Your task to perform on an android device: Open calendar and show me the second week of next month Image 0: 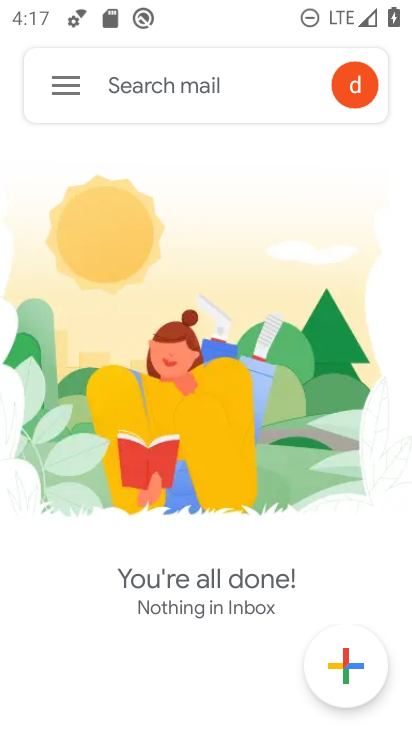
Step 0: press home button
Your task to perform on an android device: Open calendar and show me the second week of next month Image 1: 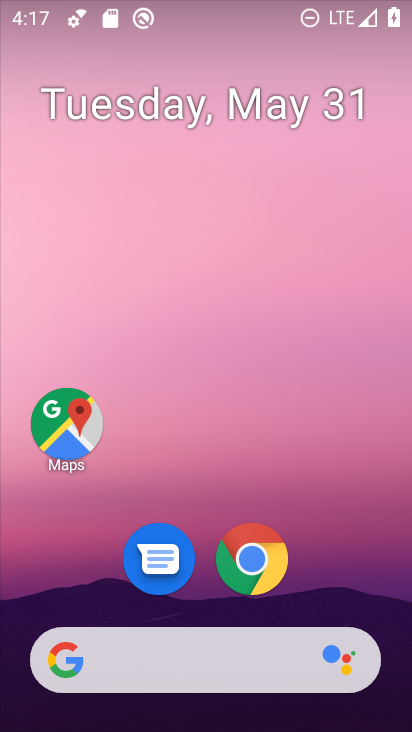
Step 1: drag from (235, 721) to (234, 100)
Your task to perform on an android device: Open calendar and show me the second week of next month Image 2: 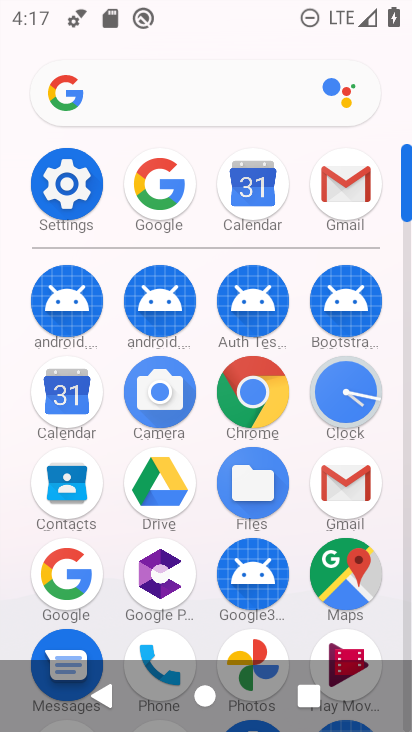
Step 2: click (61, 402)
Your task to perform on an android device: Open calendar and show me the second week of next month Image 3: 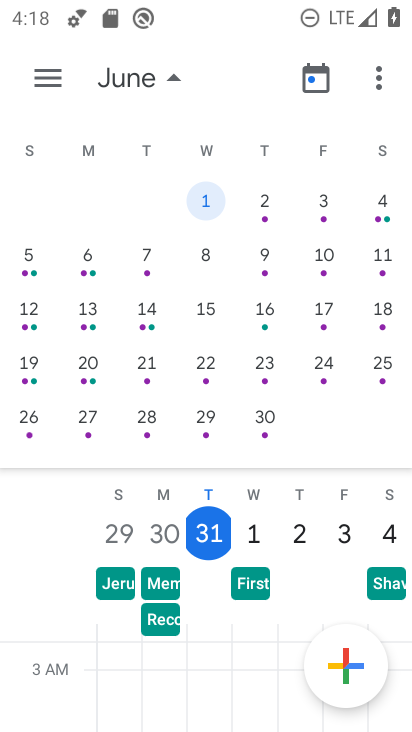
Step 3: click (87, 309)
Your task to perform on an android device: Open calendar and show me the second week of next month Image 4: 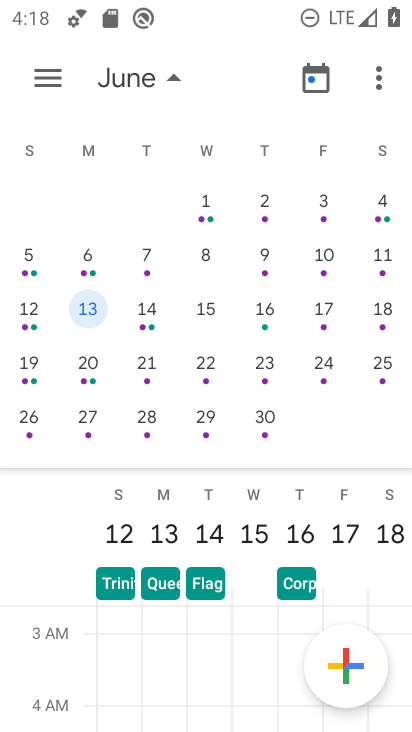
Step 4: click (171, 77)
Your task to perform on an android device: Open calendar and show me the second week of next month Image 5: 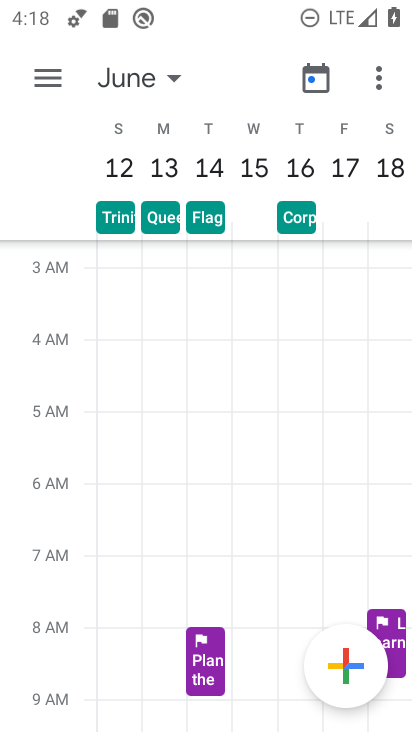
Step 5: task complete